Your task to perform on an android device: Open Chrome and go to the settings page Image 0: 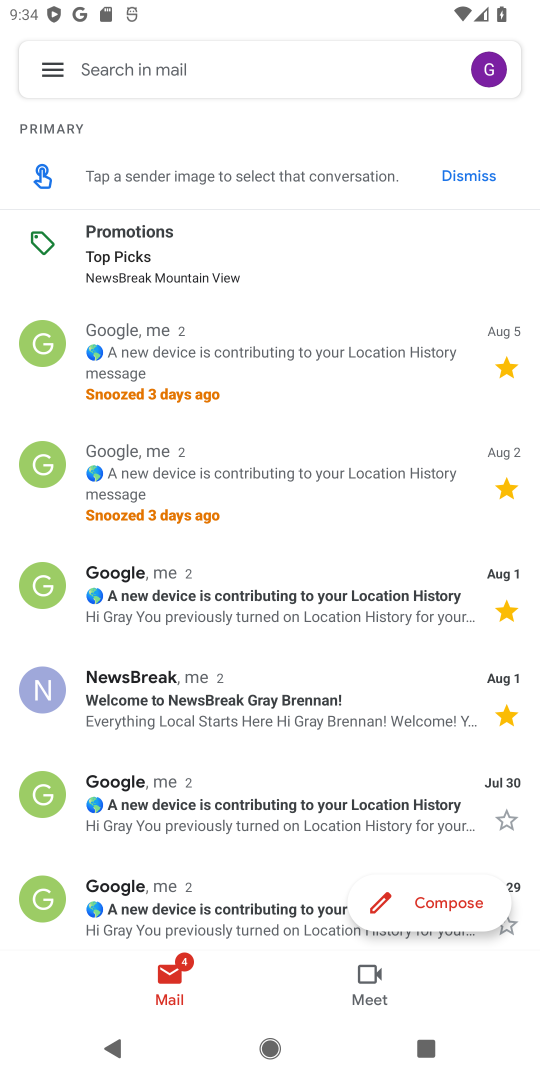
Step 0: press home button
Your task to perform on an android device: Open Chrome and go to the settings page Image 1: 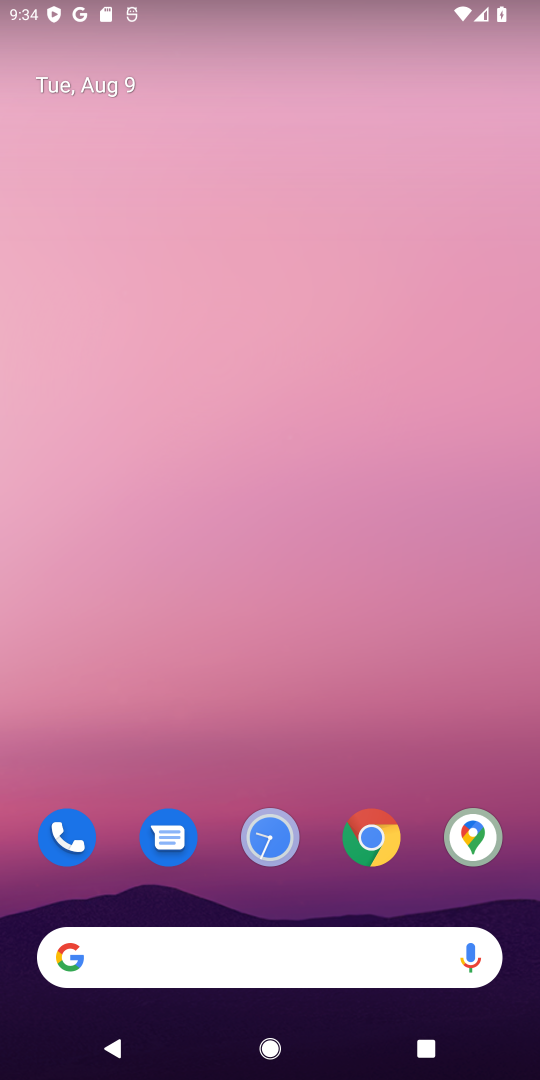
Step 1: click (375, 836)
Your task to perform on an android device: Open Chrome and go to the settings page Image 2: 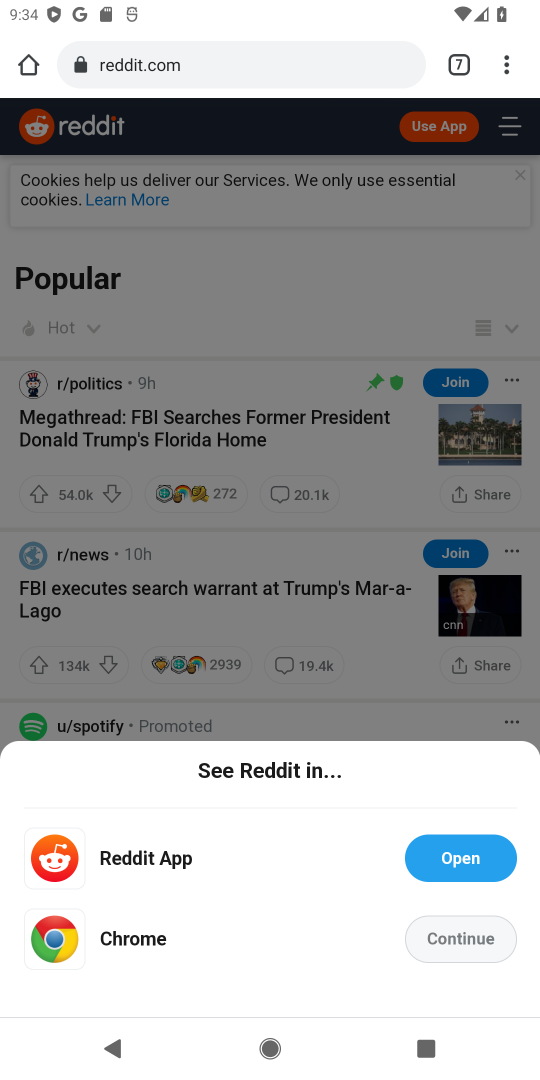
Step 2: click (508, 74)
Your task to perform on an android device: Open Chrome and go to the settings page Image 3: 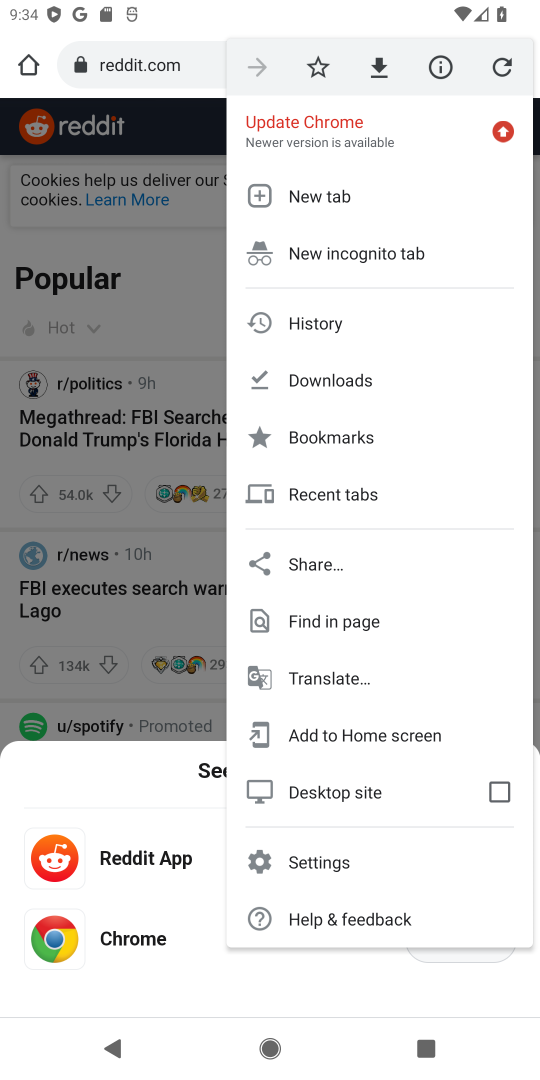
Step 3: click (331, 863)
Your task to perform on an android device: Open Chrome and go to the settings page Image 4: 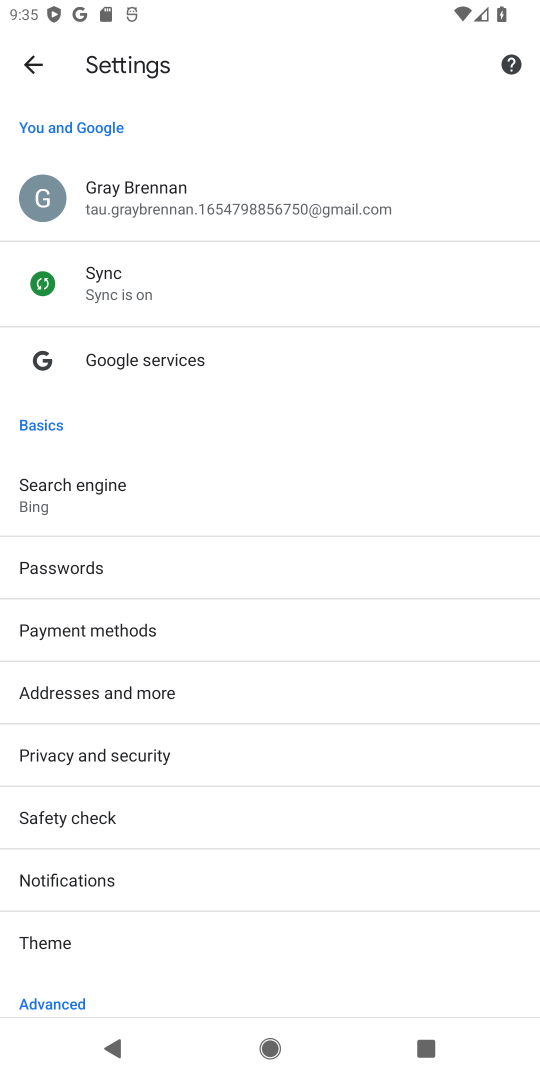
Step 4: task complete